Your task to perform on an android device: toggle wifi Image 0: 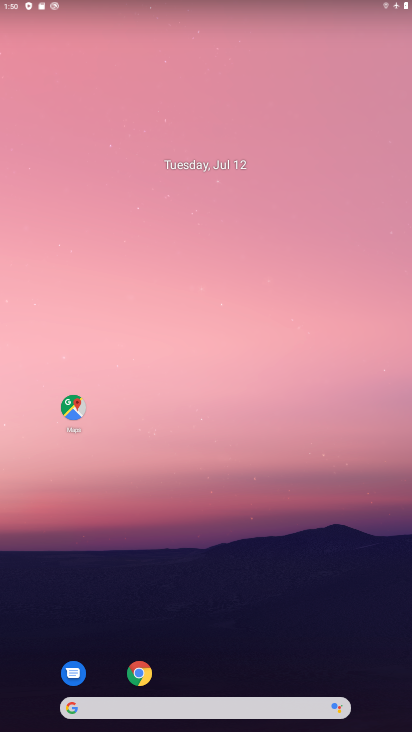
Step 0: drag from (190, 661) to (244, 221)
Your task to perform on an android device: toggle wifi Image 1: 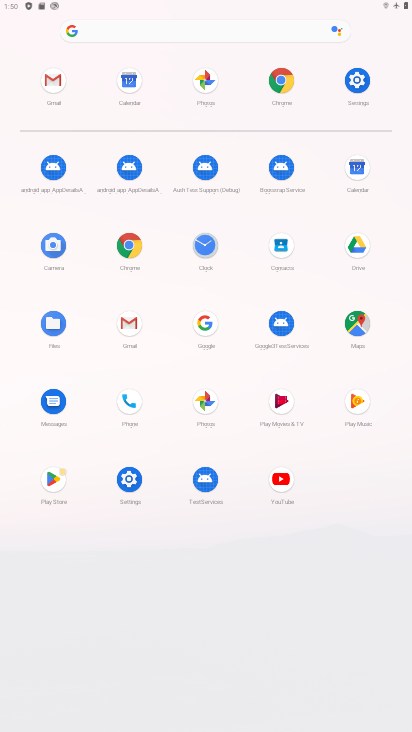
Step 1: click (366, 73)
Your task to perform on an android device: toggle wifi Image 2: 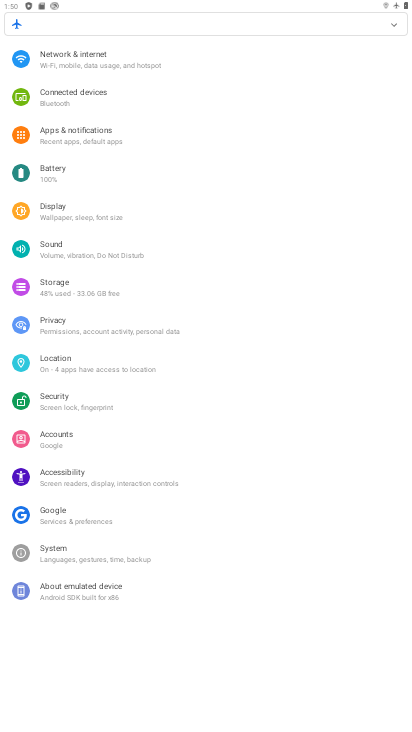
Step 2: click (105, 45)
Your task to perform on an android device: toggle wifi Image 3: 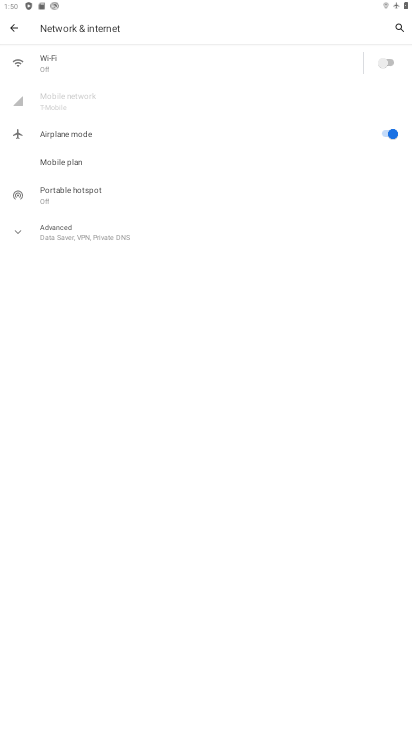
Step 3: click (69, 62)
Your task to perform on an android device: toggle wifi Image 4: 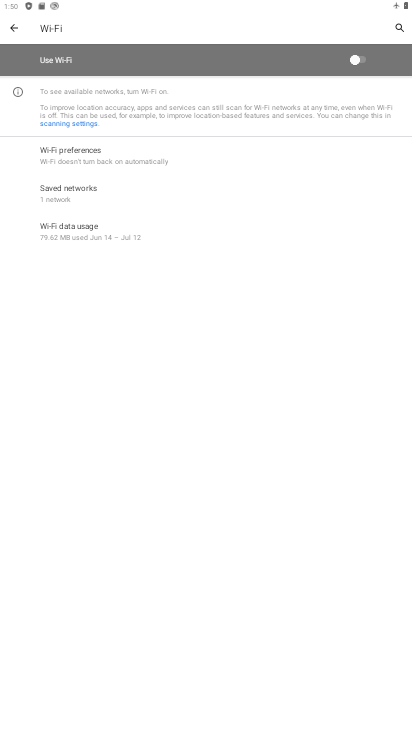
Step 4: click (369, 55)
Your task to perform on an android device: toggle wifi Image 5: 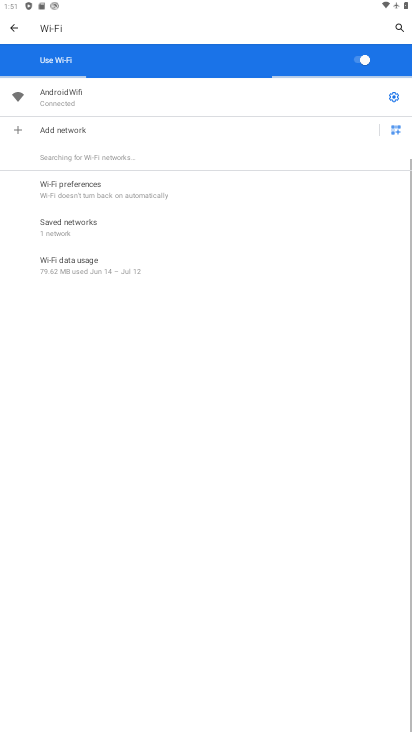
Step 5: task complete